Your task to perform on an android device: Open Chrome and go to settings Image 0: 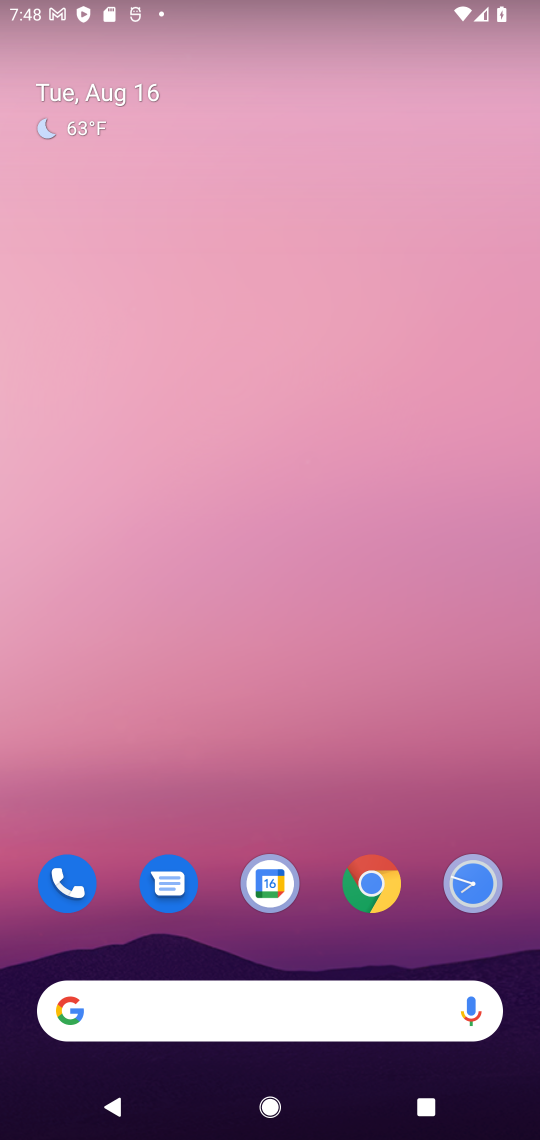
Step 0: click (373, 864)
Your task to perform on an android device: Open Chrome and go to settings Image 1: 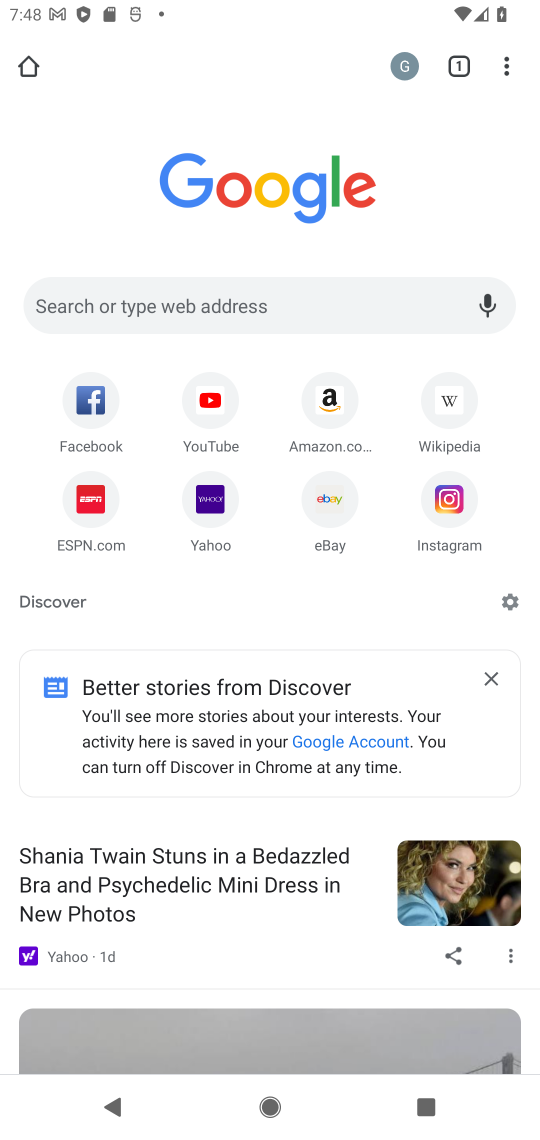
Step 1: click (505, 58)
Your task to perform on an android device: Open Chrome and go to settings Image 2: 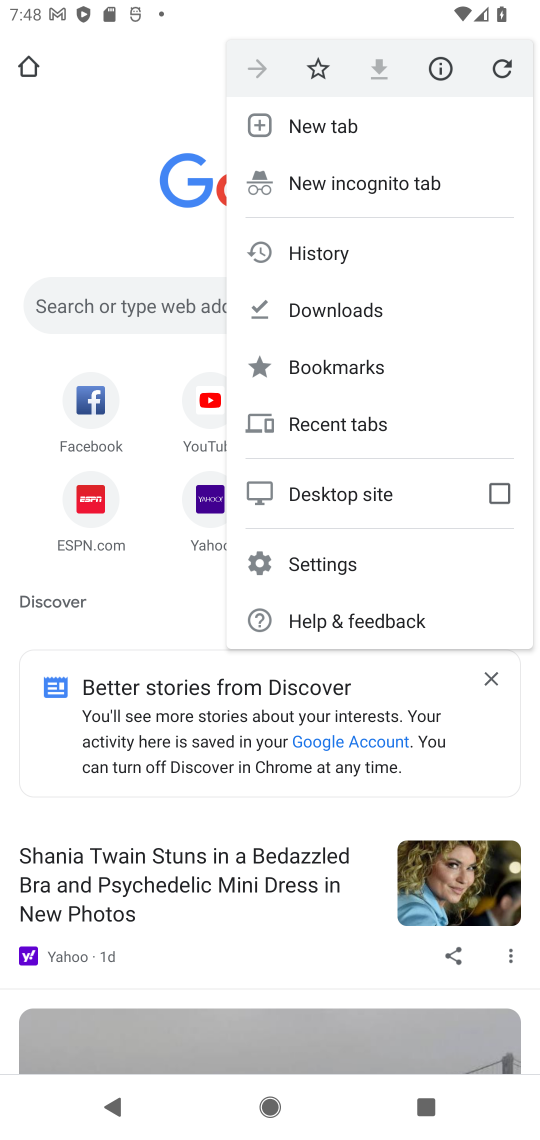
Step 2: click (329, 562)
Your task to perform on an android device: Open Chrome and go to settings Image 3: 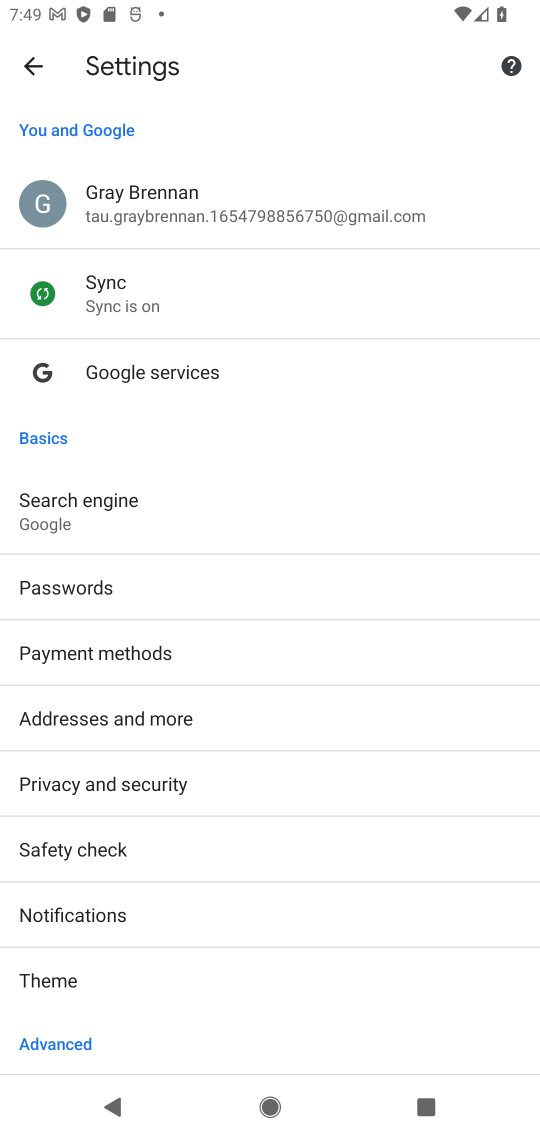
Step 3: task complete